Your task to perform on an android device: Open my contact list Image 0: 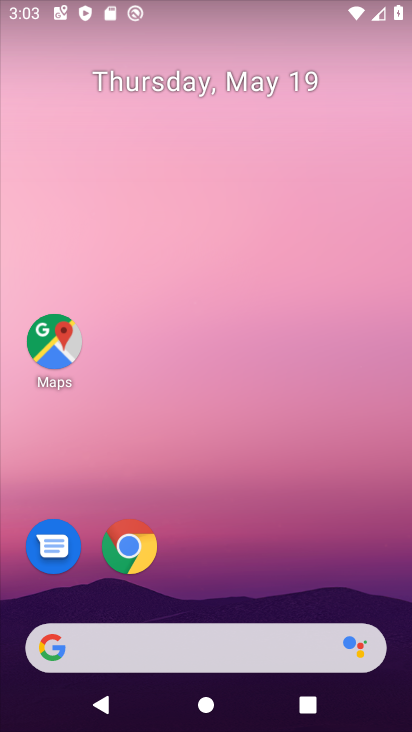
Step 0: drag from (242, 565) to (167, 55)
Your task to perform on an android device: Open my contact list Image 1: 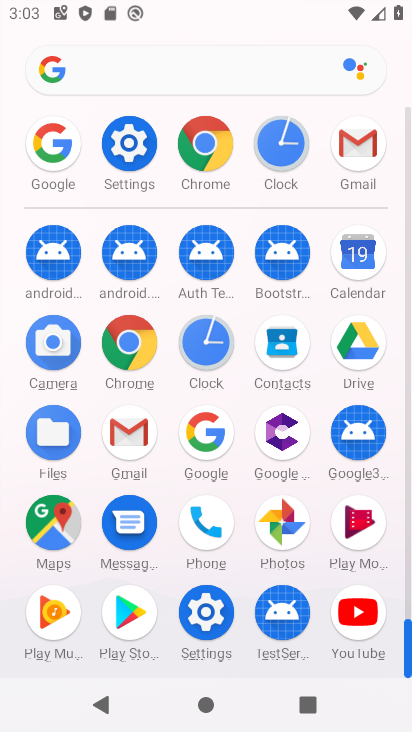
Step 1: click (283, 343)
Your task to perform on an android device: Open my contact list Image 2: 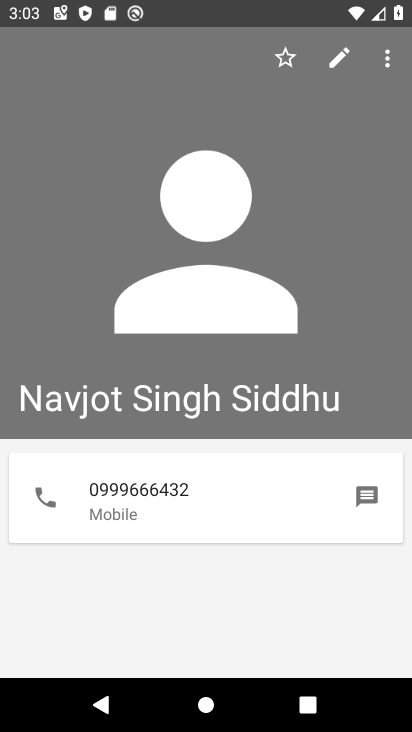
Step 2: task complete